Your task to perform on an android device: Go to Android settings Image 0: 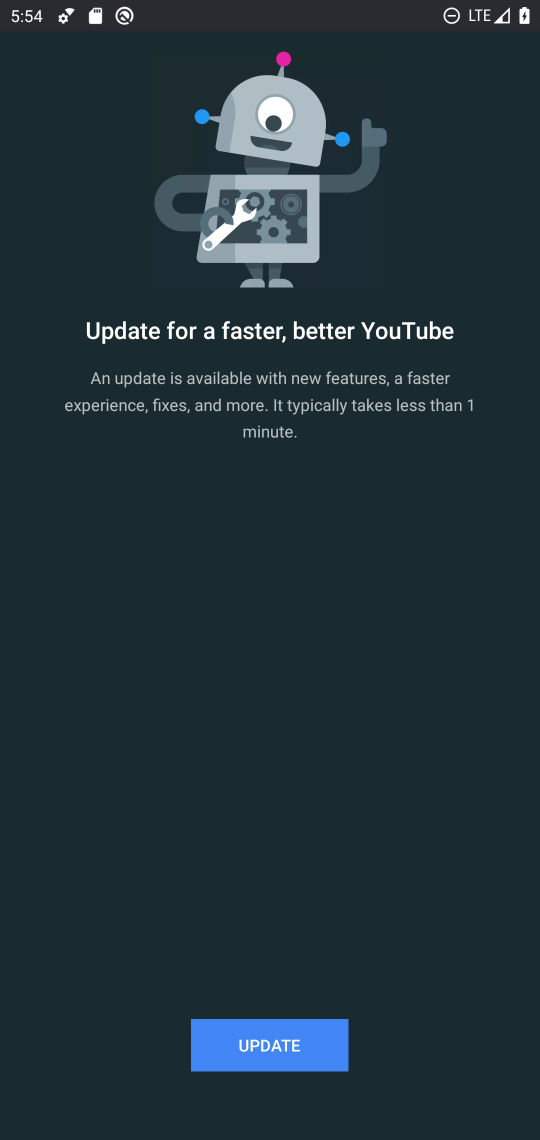
Step 0: press home button
Your task to perform on an android device: Go to Android settings Image 1: 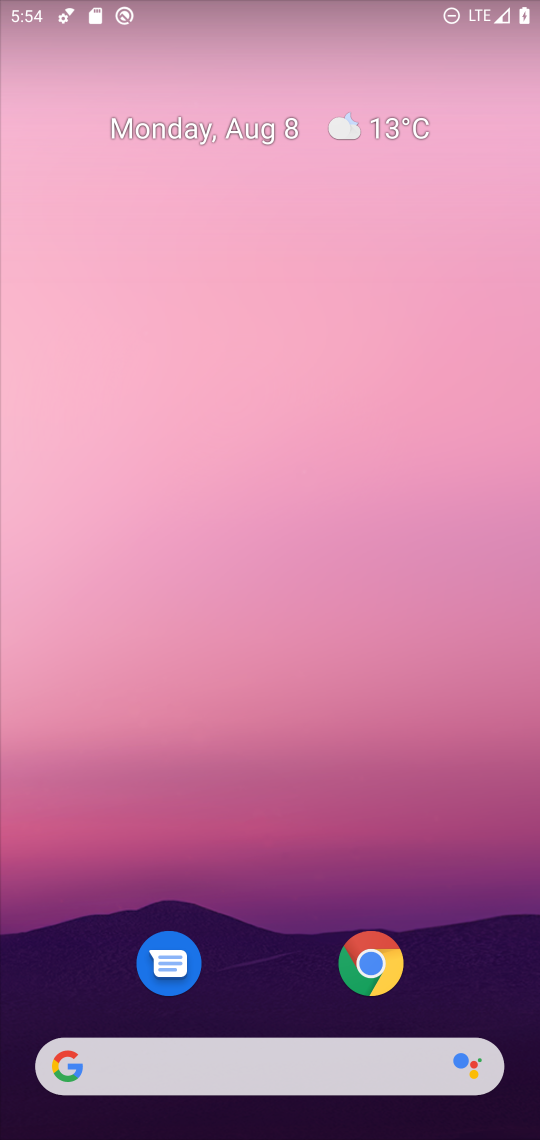
Step 1: drag from (280, 898) to (241, 276)
Your task to perform on an android device: Go to Android settings Image 2: 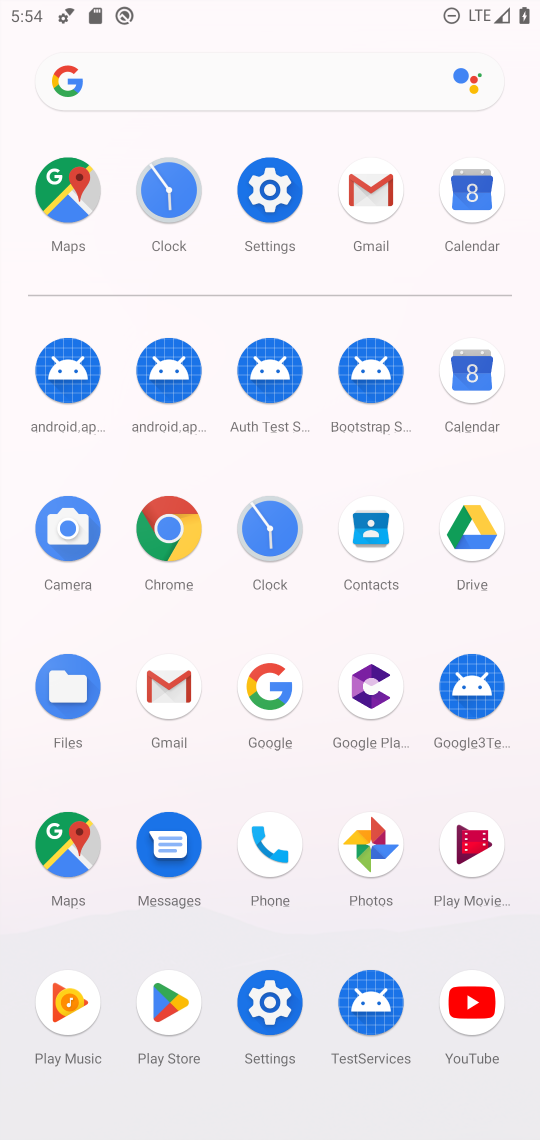
Step 2: click (276, 193)
Your task to perform on an android device: Go to Android settings Image 3: 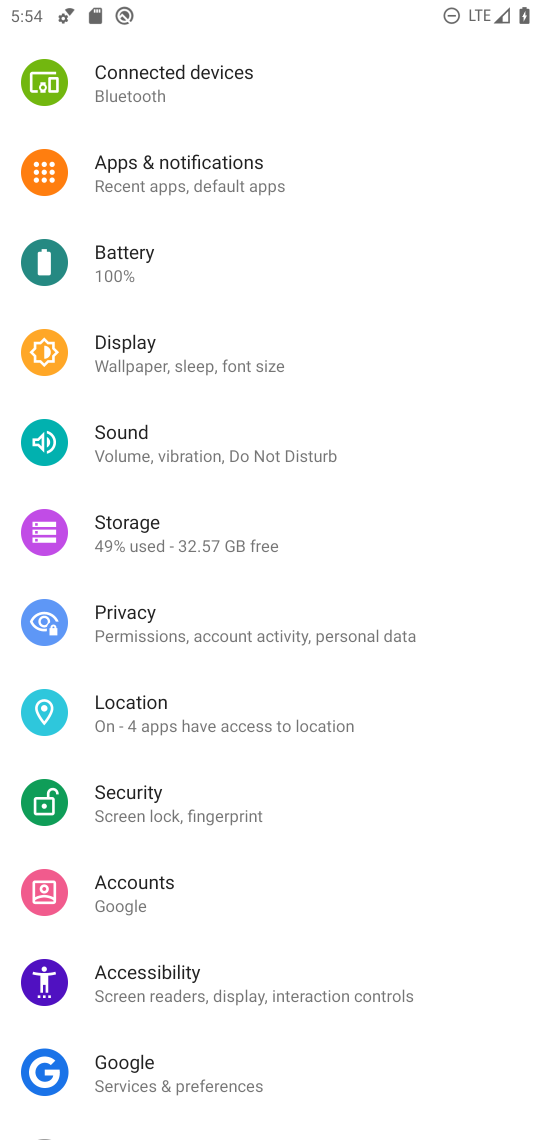
Step 3: drag from (215, 747) to (212, 231)
Your task to perform on an android device: Go to Android settings Image 4: 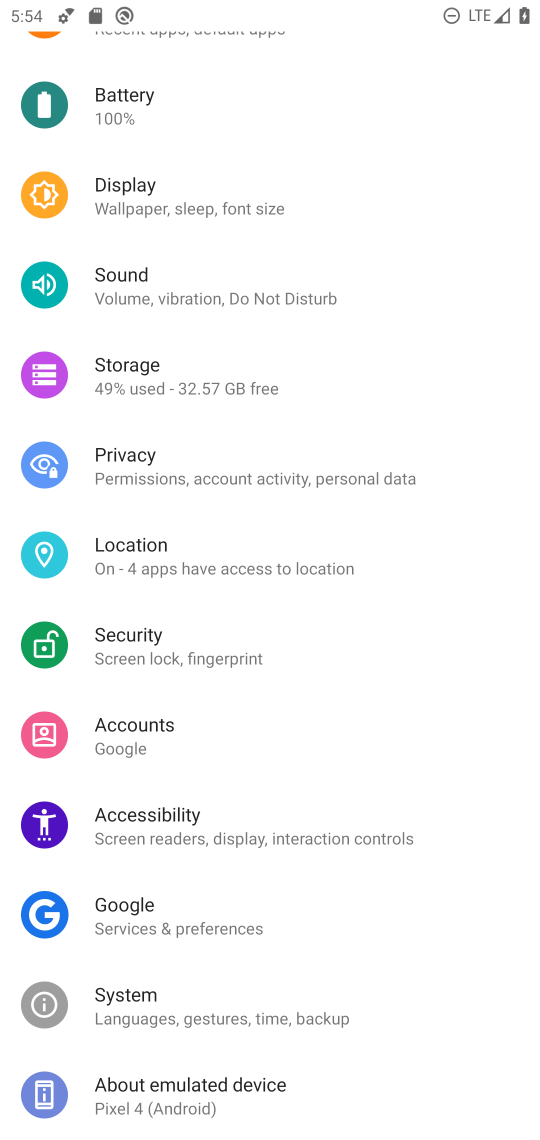
Step 4: click (160, 997)
Your task to perform on an android device: Go to Android settings Image 5: 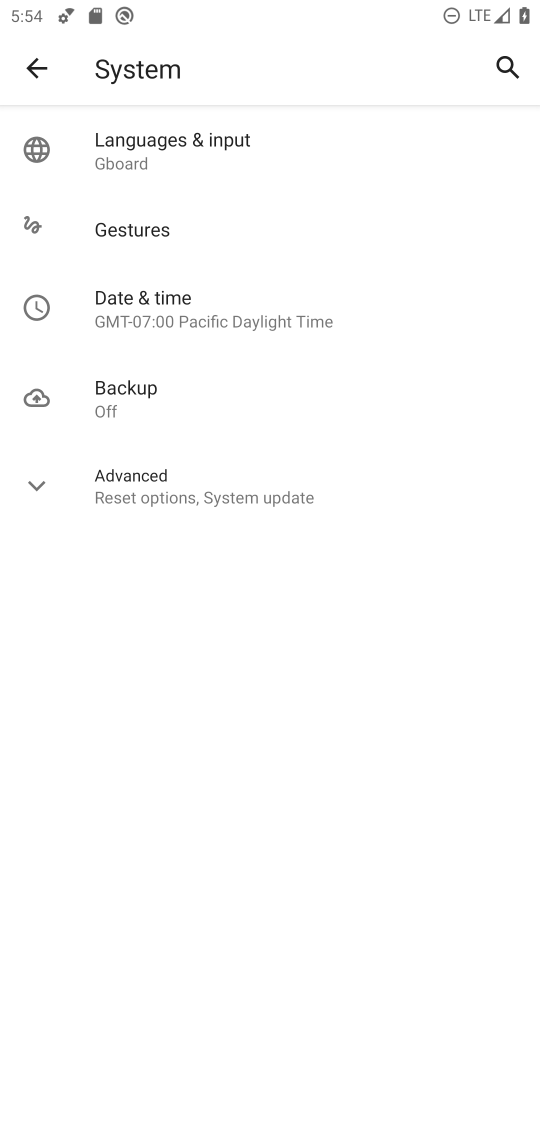
Step 5: task complete